Your task to perform on an android device: add a contact Image 0: 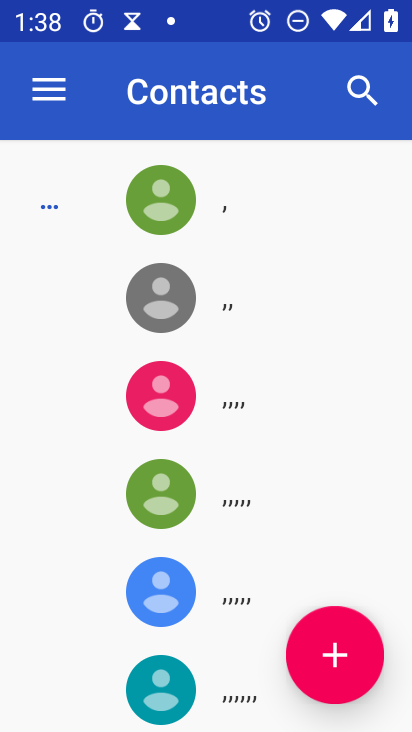
Step 0: press home button
Your task to perform on an android device: add a contact Image 1: 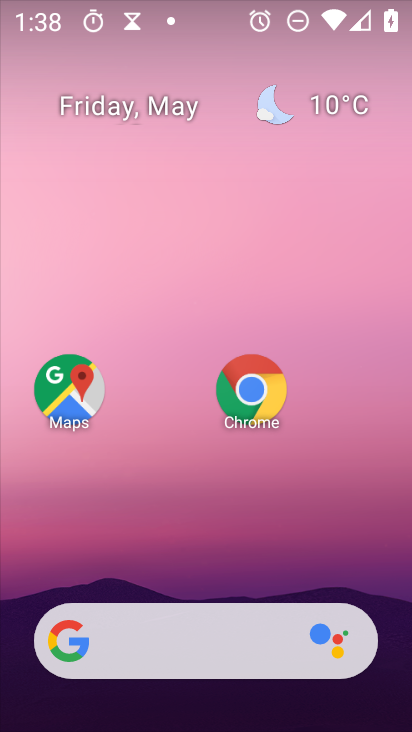
Step 1: drag from (197, 640) to (276, 104)
Your task to perform on an android device: add a contact Image 2: 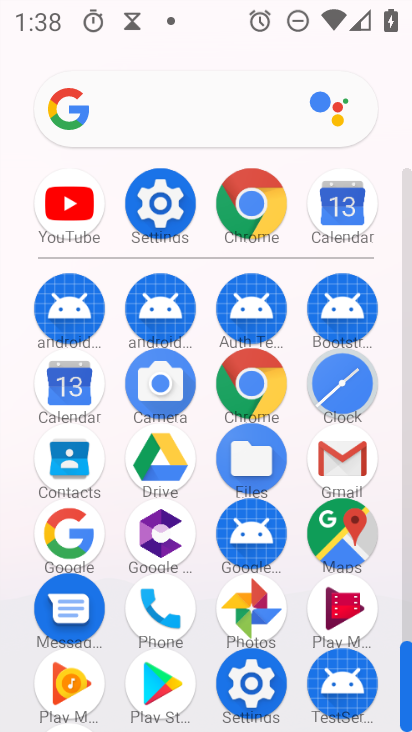
Step 2: click (75, 468)
Your task to perform on an android device: add a contact Image 3: 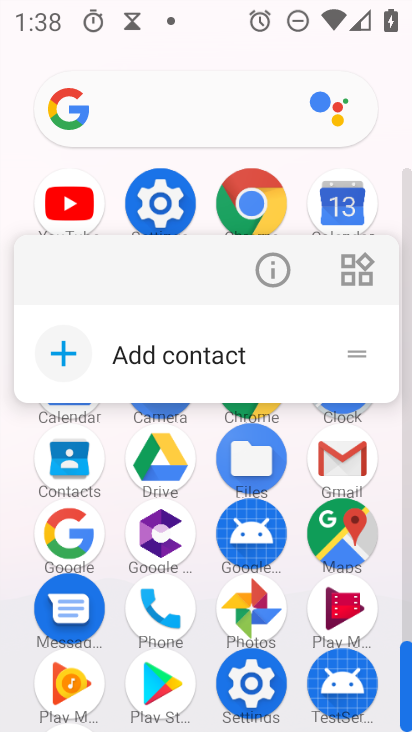
Step 3: click (70, 467)
Your task to perform on an android device: add a contact Image 4: 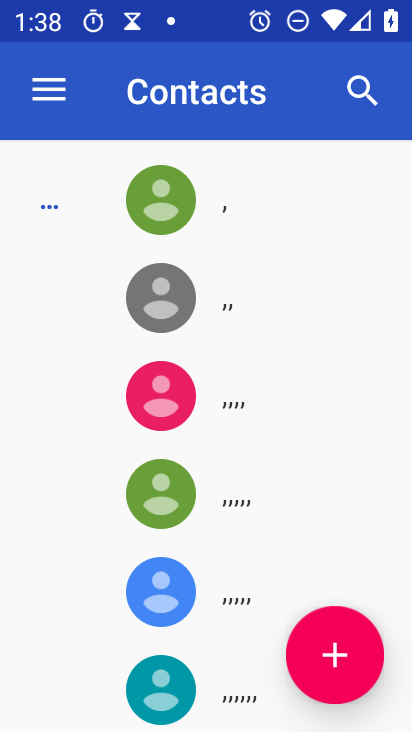
Step 4: click (329, 661)
Your task to perform on an android device: add a contact Image 5: 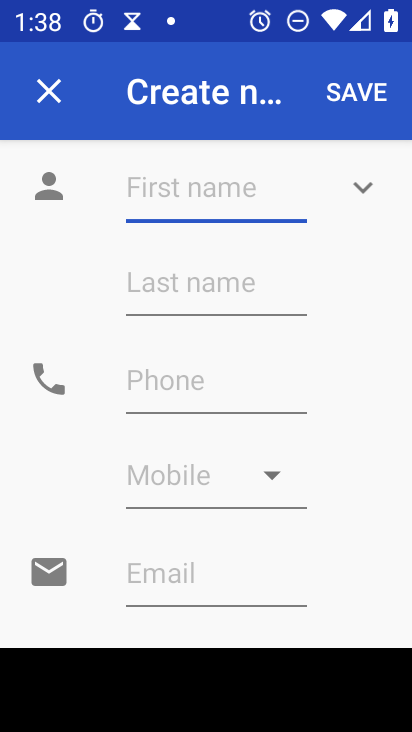
Step 5: type "muyg"
Your task to perform on an android device: add a contact Image 6: 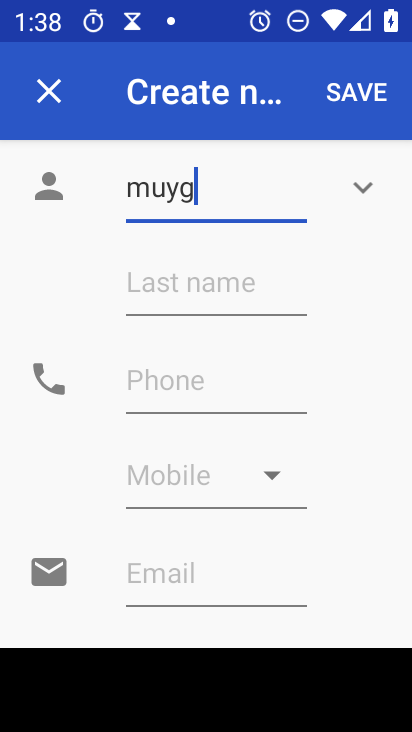
Step 6: click (190, 383)
Your task to perform on an android device: add a contact Image 7: 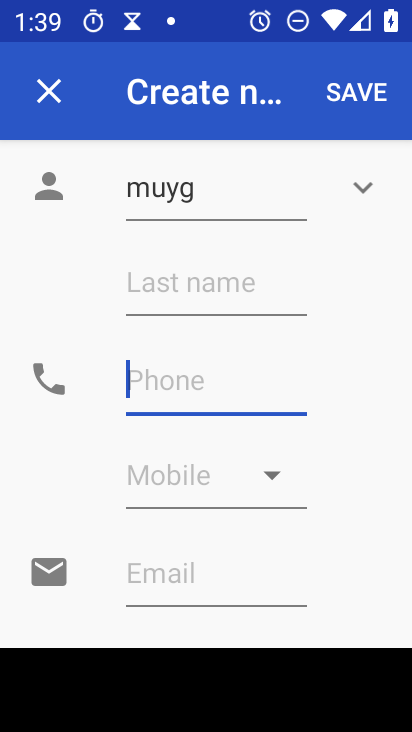
Step 7: type "6722"
Your task to perform on an android device: add a contact Image 8: 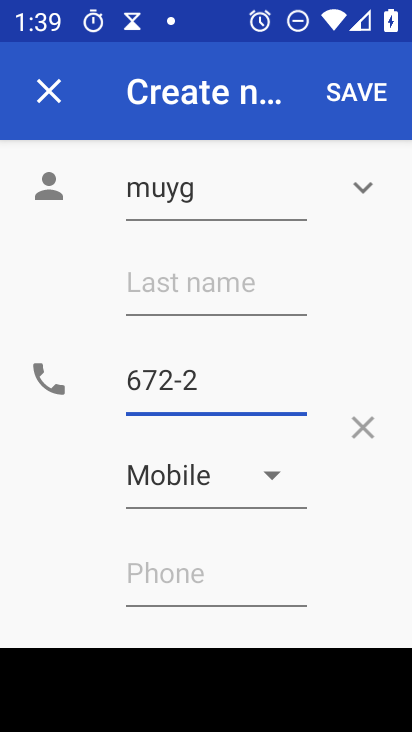
Step 8: click (363, 91)
Your task to perform on an android device: add a contact Image 9: 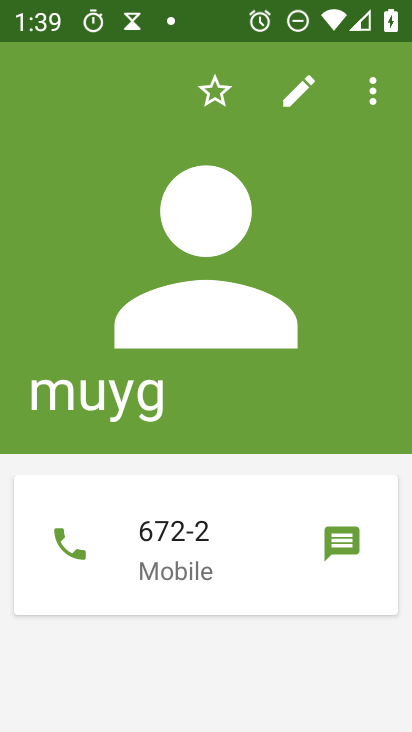
Step 9: task complete